Your task to perform on an android device: Open the phone app and click the voicemail tab. Image 0: 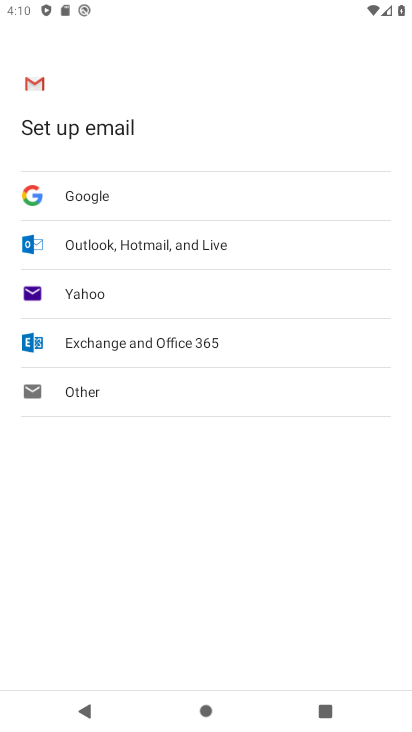
Step 0: press home button
Your task to perform on an android device: Open the phone app and click the voicemail tab. Image 1: 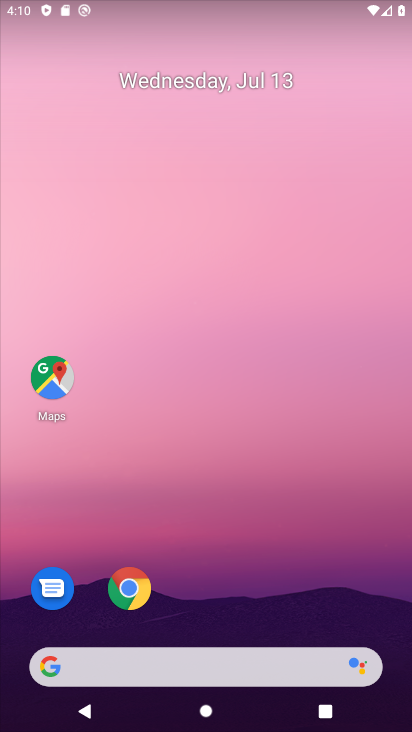
Step 1: drag from (229, 632) to (270, 243)
Your task to perform on an android device: Open the phone app and click the voicemail tab. Image 2: 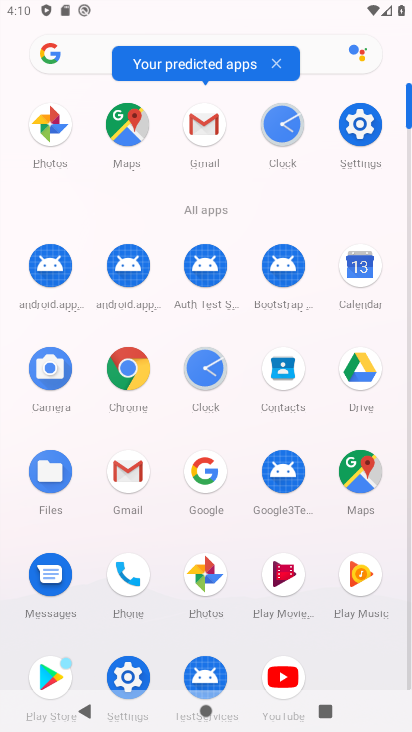
Step 2: click (123, 578)
Your task to perform on an android device: Open the phone app and click the voicemail tab. Image 3: 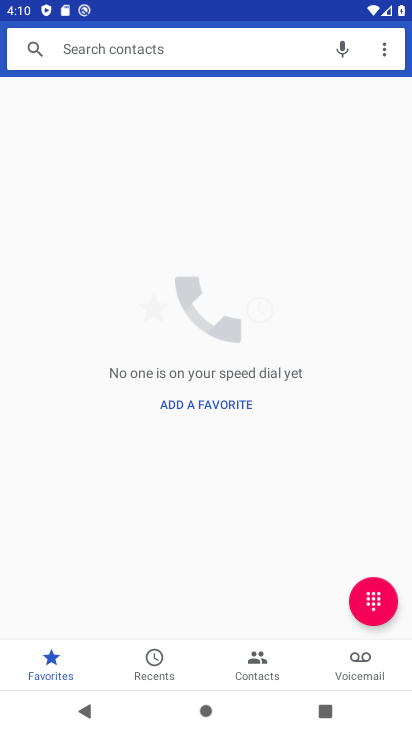
Step 3: click (377, 663)
Your task to perform on an android device: Open the phone app and click the voicemail tab. Image 4: 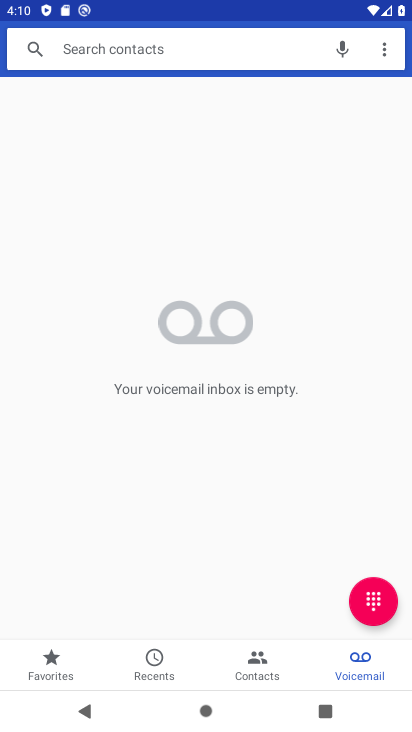
Step 4: task complete